Your task to perform on an android device: turn off priority inbox in the gmail app Image 0: 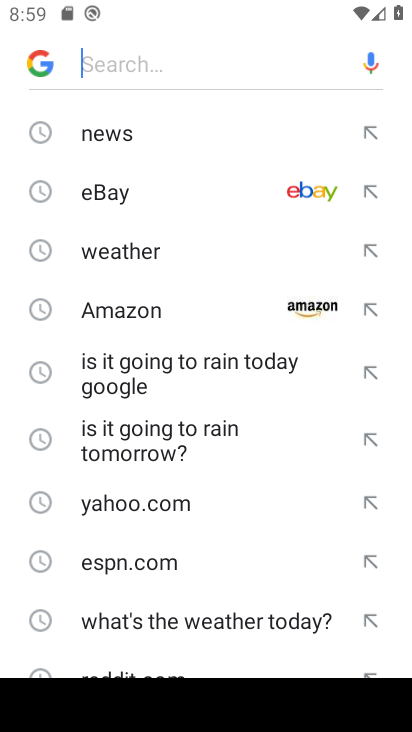
Step 0: press home button
Your task to perform on an android device: turn off priority inbox in the gmail app Image 1: 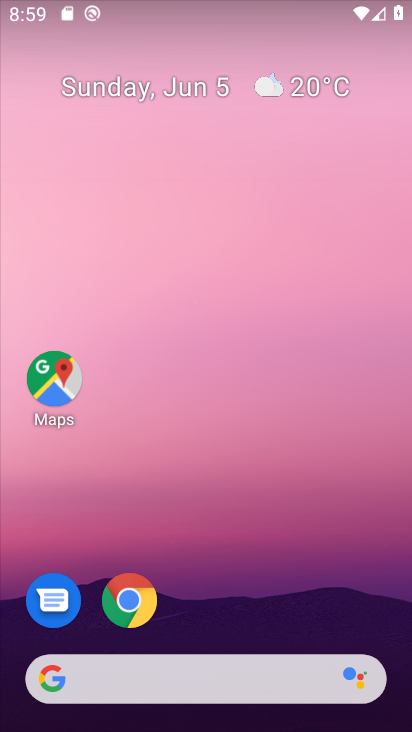
Step 1: drag from (238, 547) to (271, 17)
Your task to perform on an android device: turn off priority inbox in the gmail app Image 2: 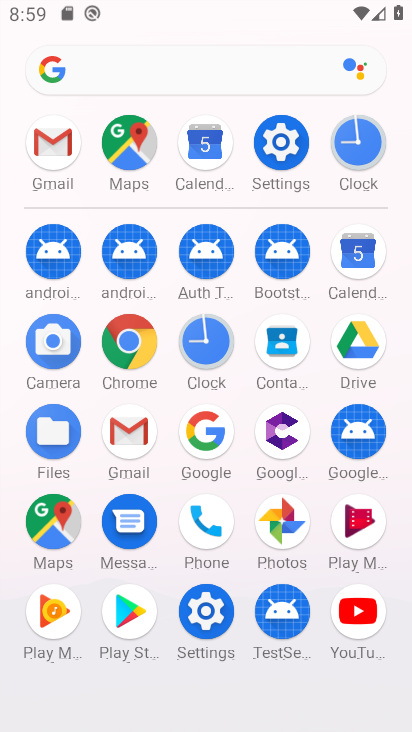
Step 2: click (53, 136)
Your task to perform on an android device: turn off priority inbox in the gmail app Image 3: 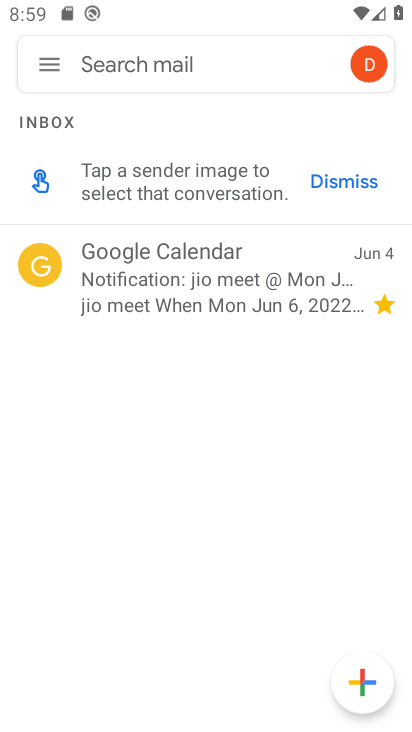
Step 3: click (50, 59)
Your task to perform on an android device: turn off priority inbox in the gmail app Image 4: 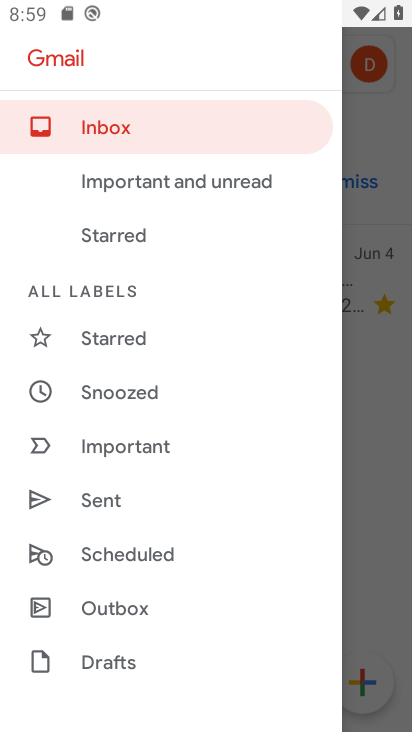
Step 4: drag from (161, 587) to (181, 190)
Your task to perform on an android device: turn off priority inbox in the gmail app Image 5: 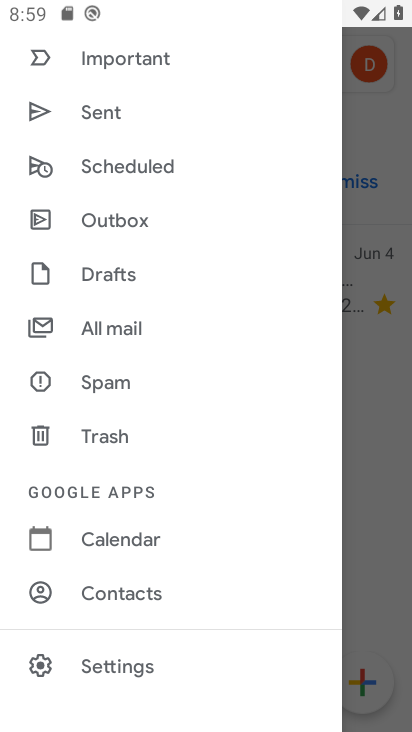
Step 5: click (149, 657)
Your task to perform on an android device: turn off priority inbox in the gmail app Image 6: 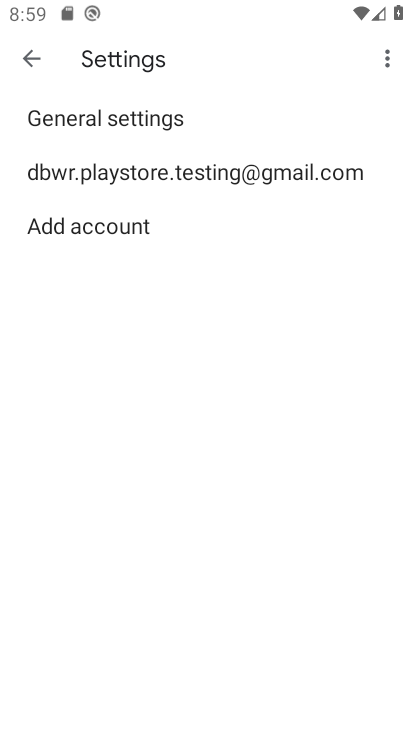
Step 6: click (195, 170)
Your task to perform on an android device: turn off priority inbox in the gmail app Image 7: 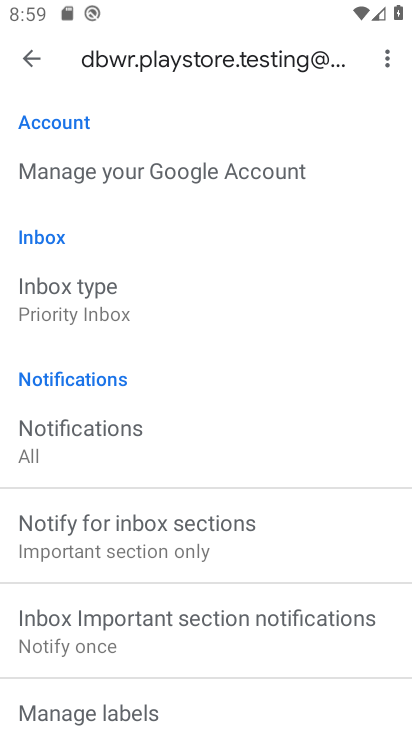
Step 7: click (103, 288)
Your task to perform on an android device: turn off priority inbox in the gmail app Image 8: 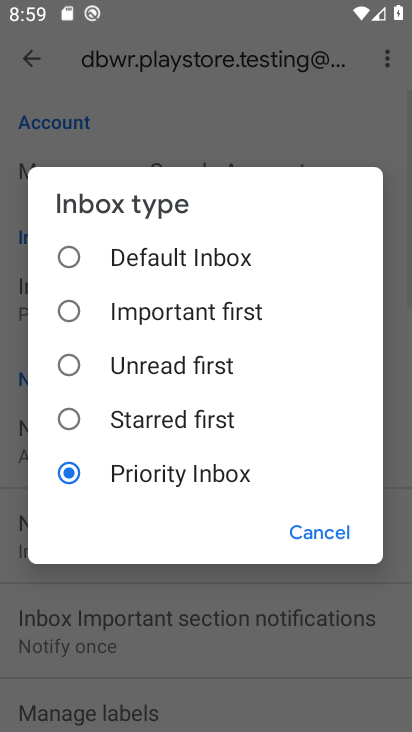
Step 8: click (81, 247)
Your task to perform on an android device: turn off priority inbox in the gmail app Image 9: 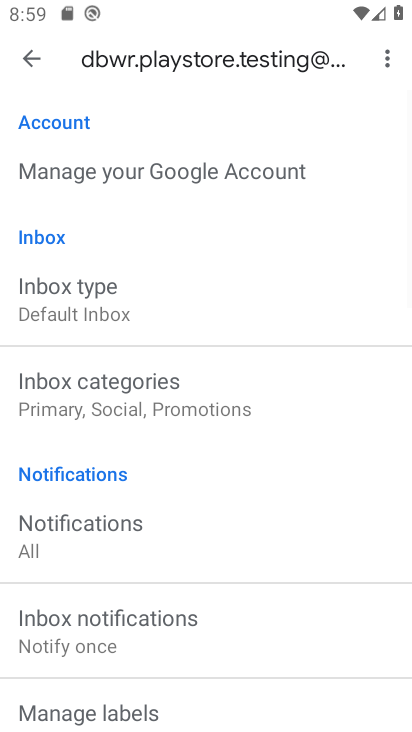
Step 9: task complete